Your task to perform on an android device: Find coffee shops on Maps Image 0: 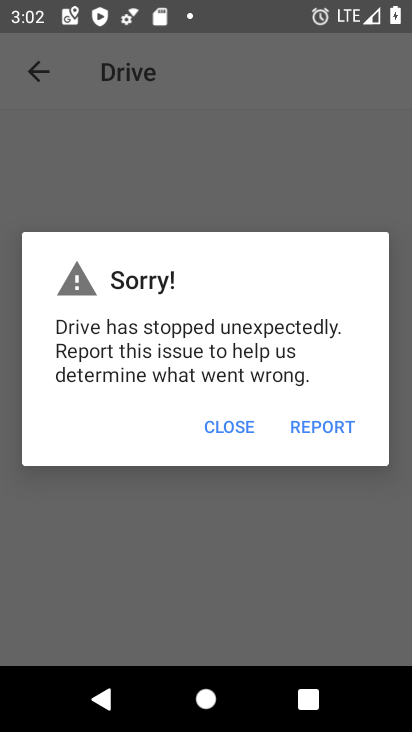
Step 0: press home button
Your task to perform on an android device: Find coffee shops on Maps Image 1: 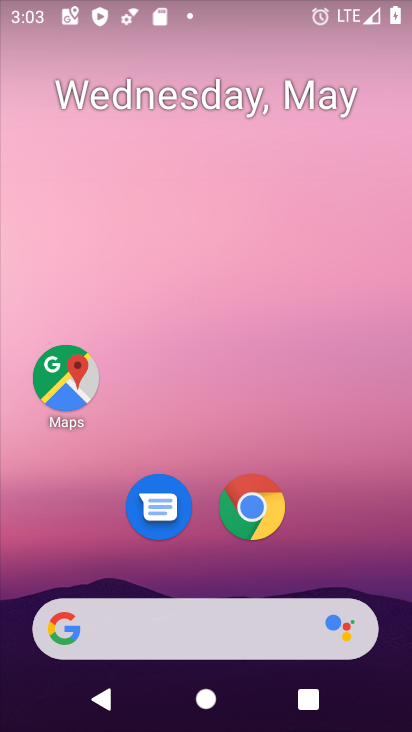
Step 1: click (66, 378)
Your task to perform on an android device: Find coffee shops on Maps Image 2: 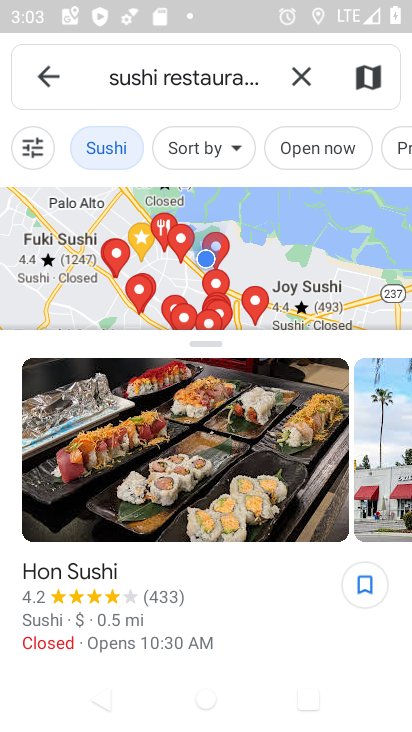
Step 2: click (303, 77)
Your task to perform on an android device: Find coffee shops on Maps Image 3: 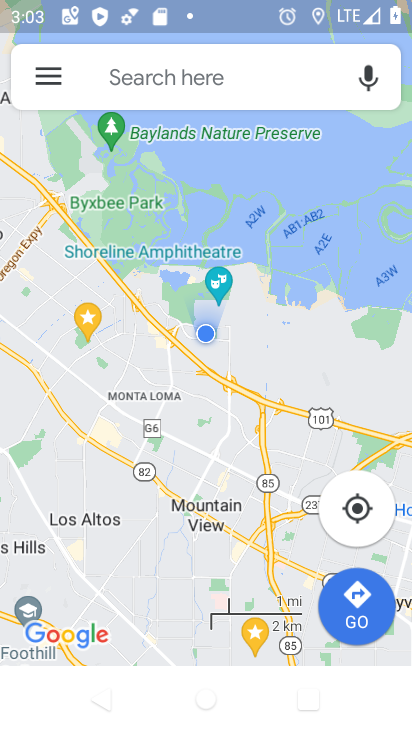
Step 3: click (231, 77)
Your task to perform on an android device: Find coffee shops on Maps Image 4: 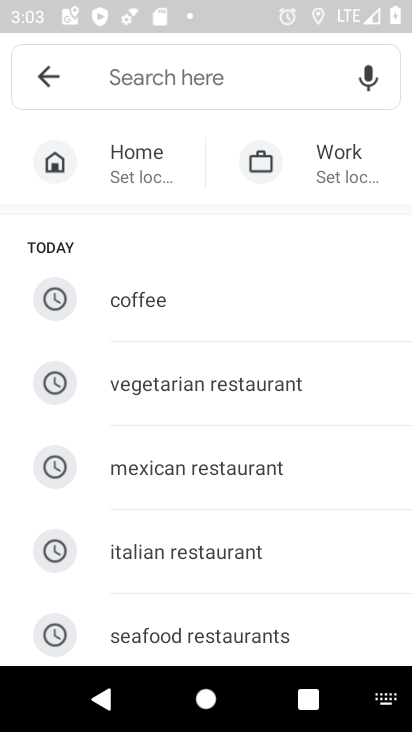
Step 4: type "coffee shops"
Your task to perform on an android device: Find coffee shops on Maps Image 5: 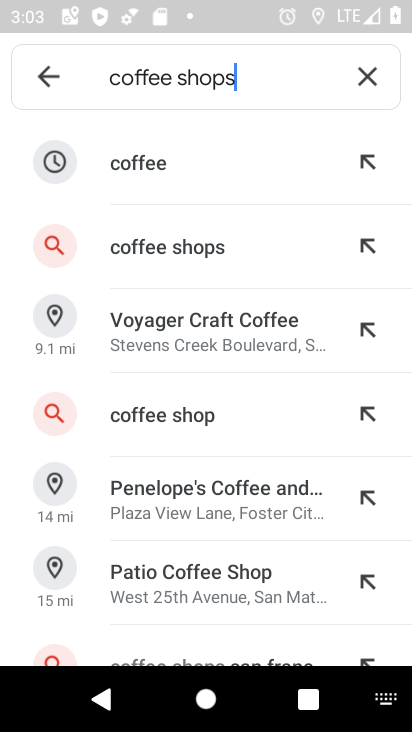
Step 5: click (207, 245)
Your task to perform on an android device: Find coffee shops on Maps Image 6: 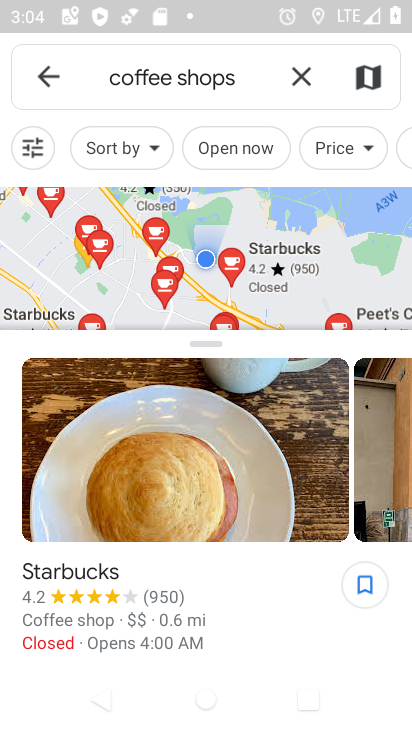
Step 6: task complete